Your task to perform on an android device: Open location settings Image 0: 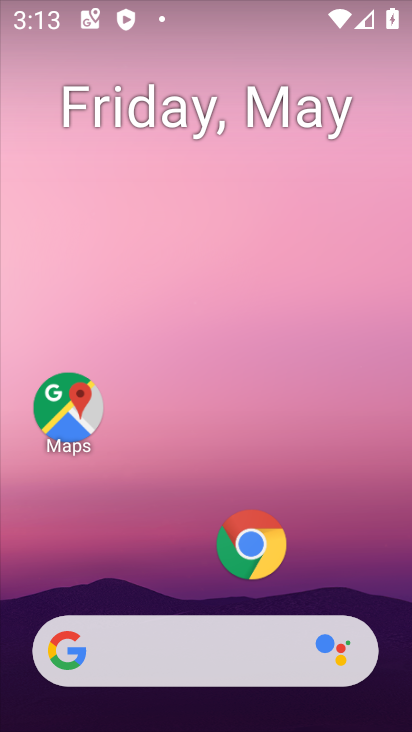
Step 0: drag from (199, 596) to (226, 119)
Your task to perform on an android device: Open location settings Image 1: 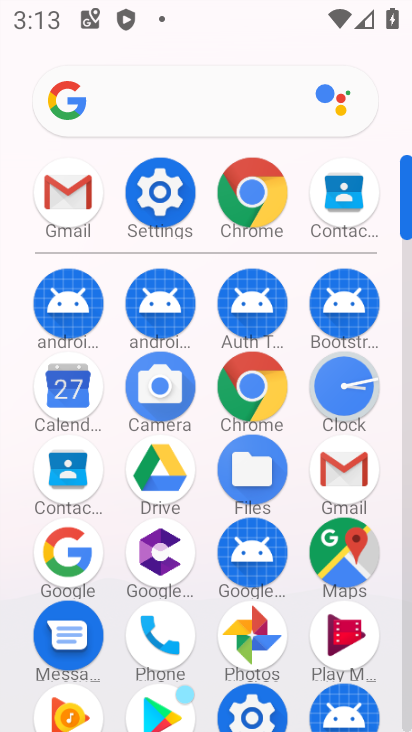
Step 1: click (169, 166)
Your task to perform on an android device: Open location settings Image 2: 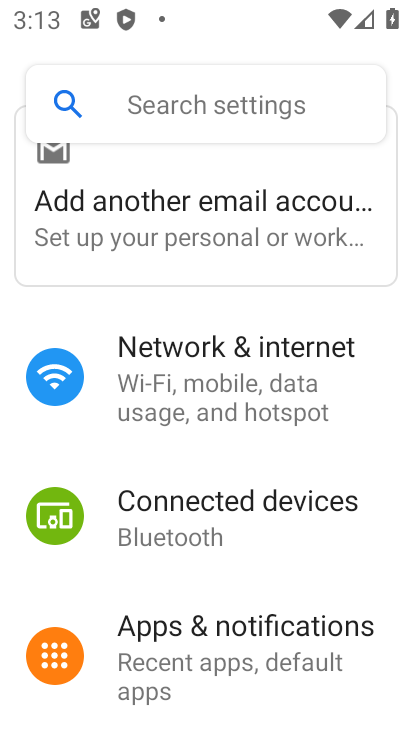
Step 2: drag from (200, 615) to (235, 278)
Your task to perform on an android device: Open location settings Image 3: 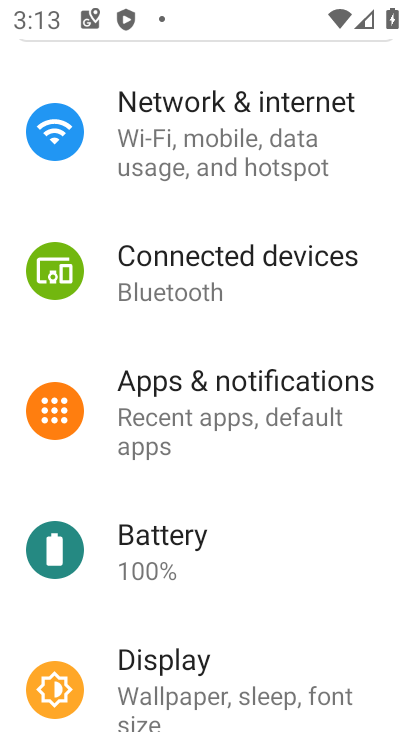
Step 3: drag from (269, 544) to (263, 280)
Your task to perform on an android device: Open location settings Image 4: 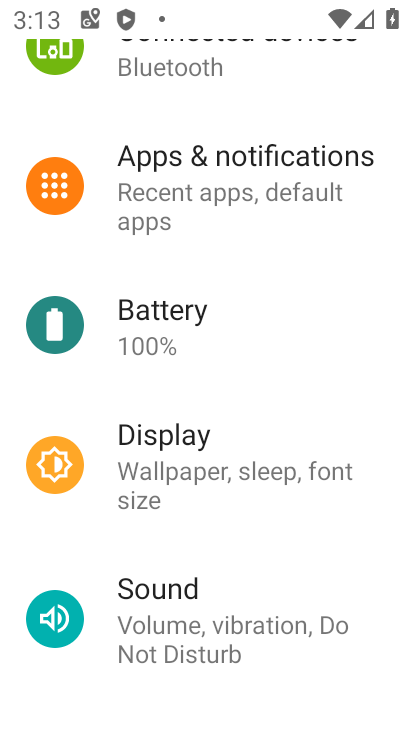
Step 4: drag from (227, 606) to (234, 199)
Your task to perform on an android device: Open location settings Image 5: 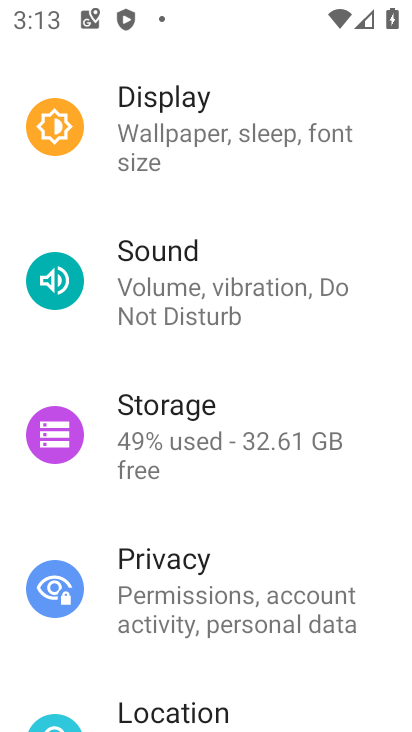
Step 5: drag from (250, 606) to (262, 264)
Your task to perform on an android device: Open location settings Image 6: 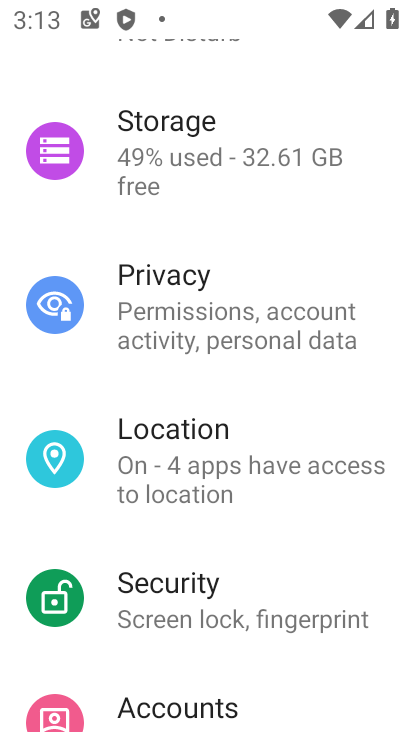
Step 6: click (206, 464)
Your task to perform on an android device: Open location settings Image 7: 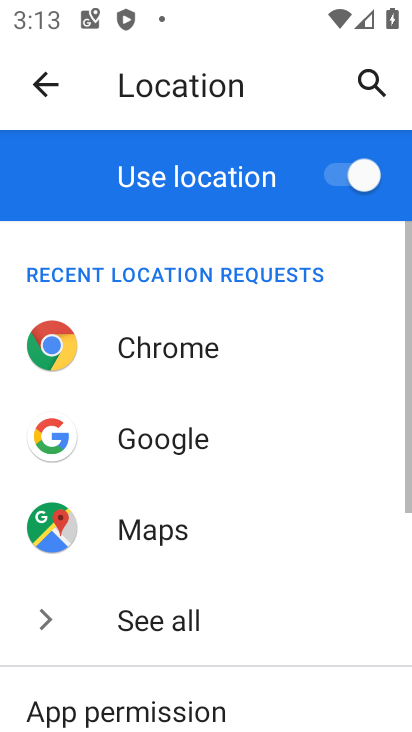
Step 7: task complete